Your task to perform on an android device: Open calendar and show me the second week of next month Image 0: 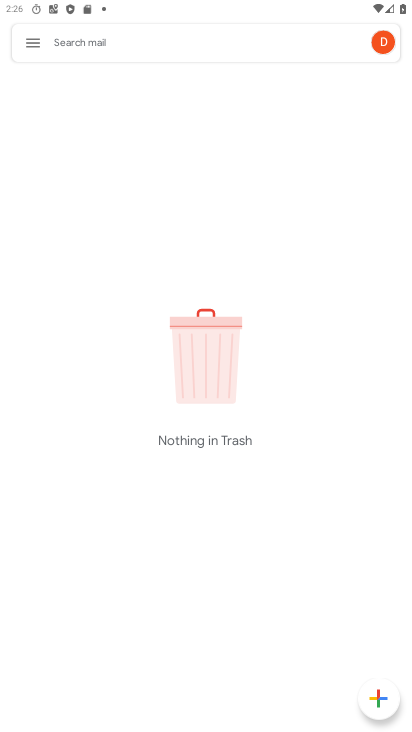
Step 0: press home button
Your task to perform on an android device: Open calendar and show me the second week of next month Image 1: 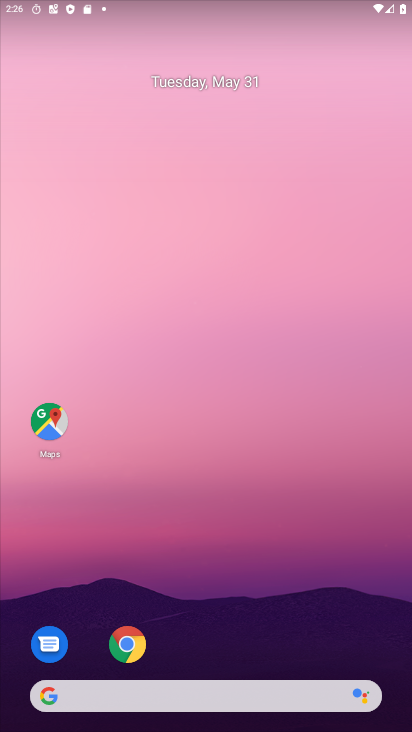
Step 1: drag from (394, 707) to (368, 125)
Your task to perform on an android device: Open calendar and show me the second week of next month Image 2: 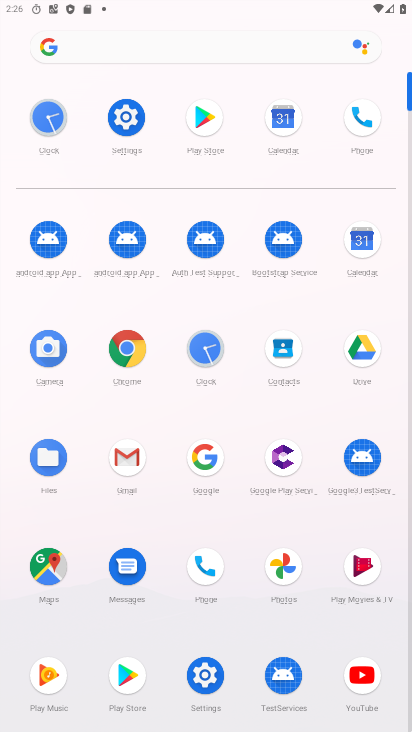
Step 2: click (356, 241)
Your task to perform on an android device: Open calendar and show me the second week of next month Image 3: 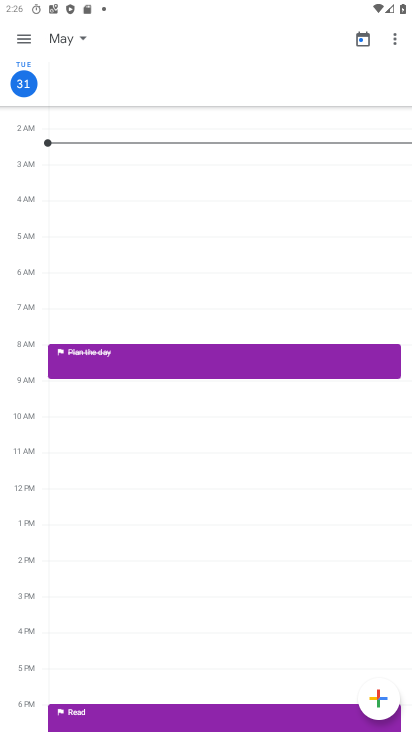
Step 3: click (78, 39)
Your task to perform on an android device: Open calendar and show me the second week of next month Image 4: 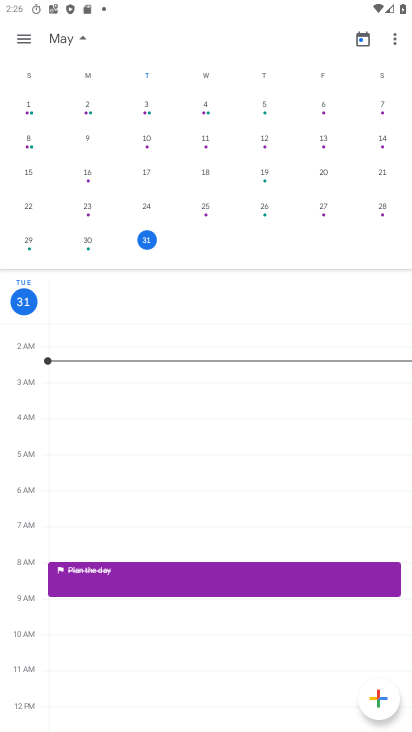
Step 4: drag from (396, 173) to (52, 133)
Your task to perform on an android device: Open calendar and show me the second week of next month Image 5: 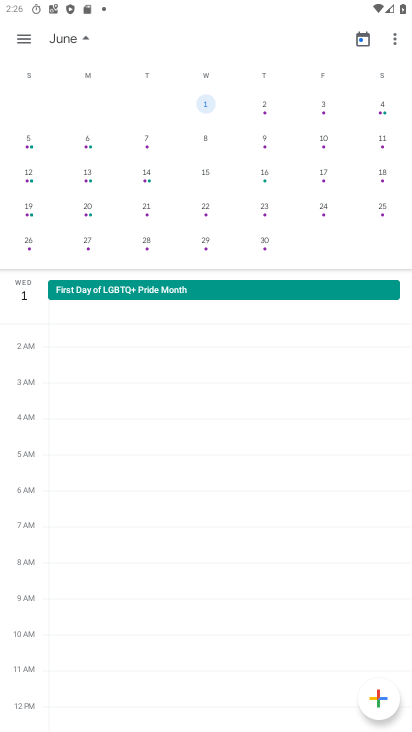
Step 5: click (322, 204)
Your task to perform on an android device: Open calendar and show me the second week of next month Image 6: 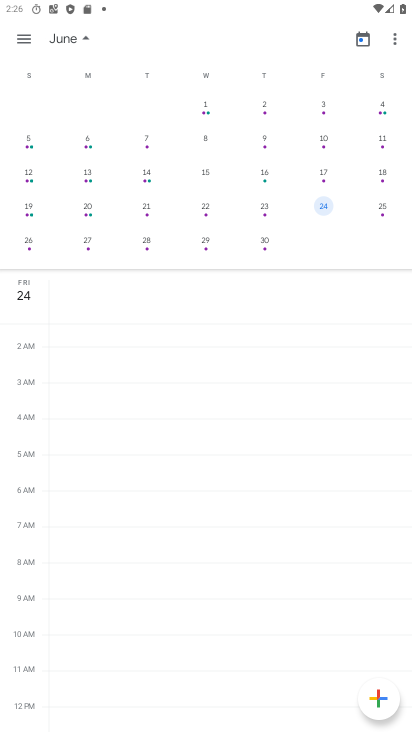
Step 6: click (24, 38)
Your task to perform on an android device: Open calendar and show me the second week of next month Image 7: 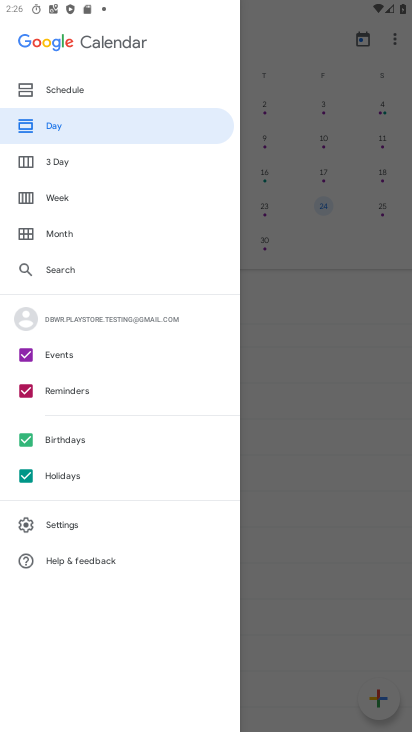
Step 7: click (46, 195)
Your task to perform on an android device: Open calendar and show me the second week of next month Image 8: 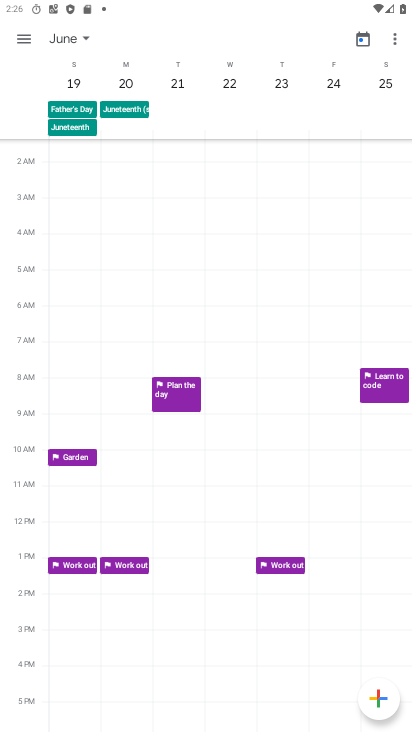
Step 8: task complete